Your task to perform on an android device: open a new tab in the chrome app Image 0: 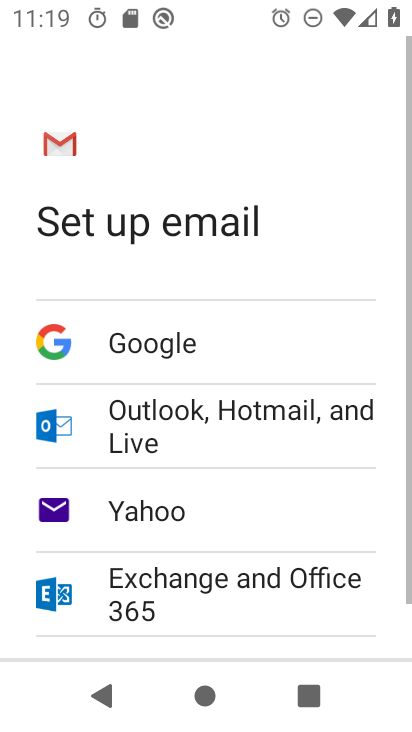
Step 0: press home button
Your task to perform on an android device: open a new tab in the chrome app Image 1: 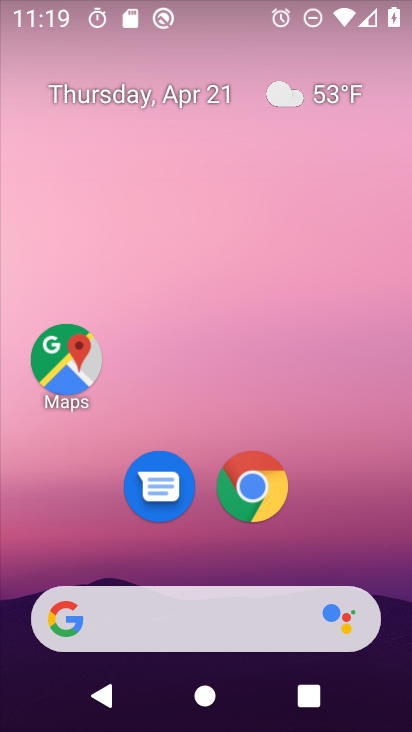
Step 1: drag from (384, 618) to (363, 225)
Your task to perform on an android device: open a new tab in the chrome app Image 2: 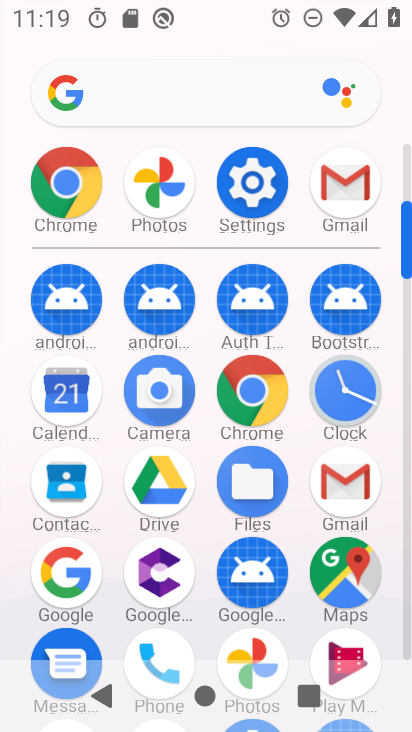
Step 2: click (241, 170)
Your task to perform on an android device: open a new tab in the chrome app Image 3: 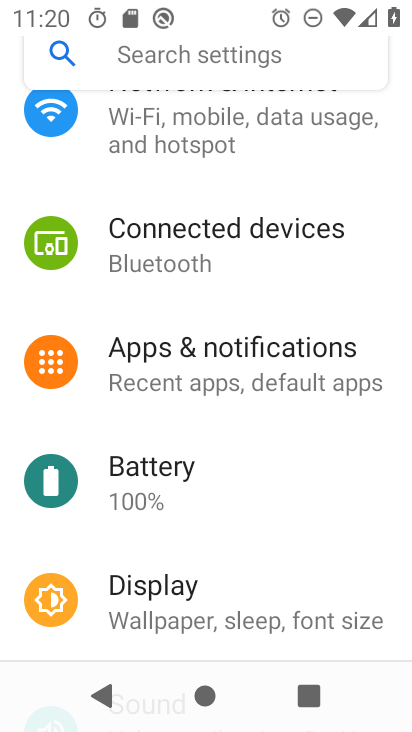
Step 3: press home button
Your task to perform on an android device: open a new tab in the chrome app Image 4: 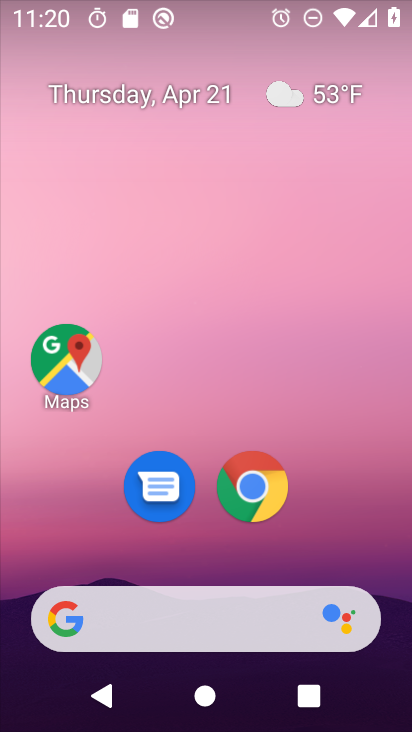
Step 4: click (244, 483)
Your task to perform on an android device: open a new tab in the chrome app Image 5: 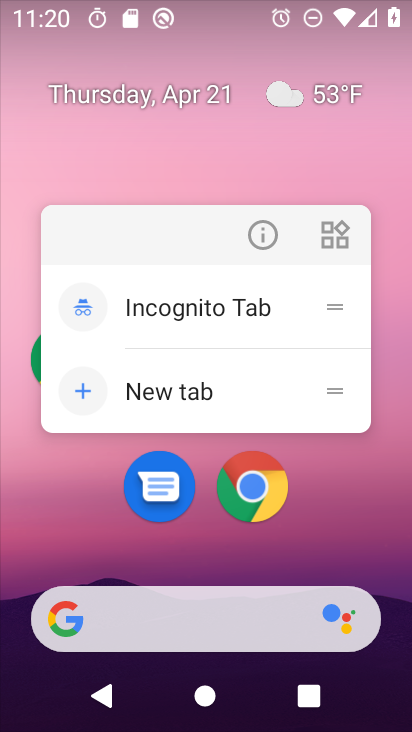
Step 5: click (253, 486)
Your task to perform on an android device: open a new tab in the chrome app Image 6: 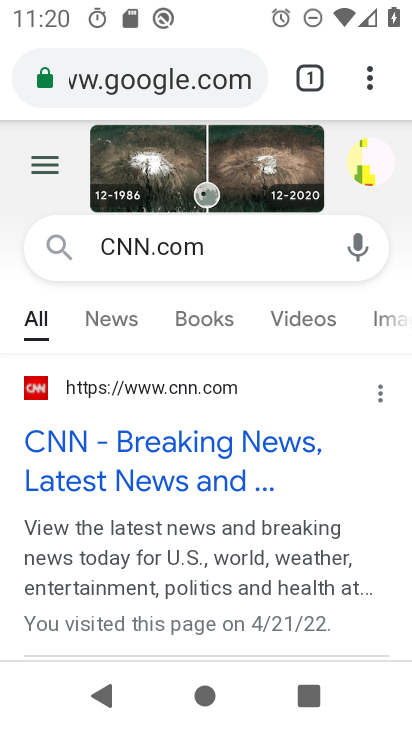
Step 6: click (366, 77)
Your task to perform on an android device: open a new tab in the chrome app Image 7: 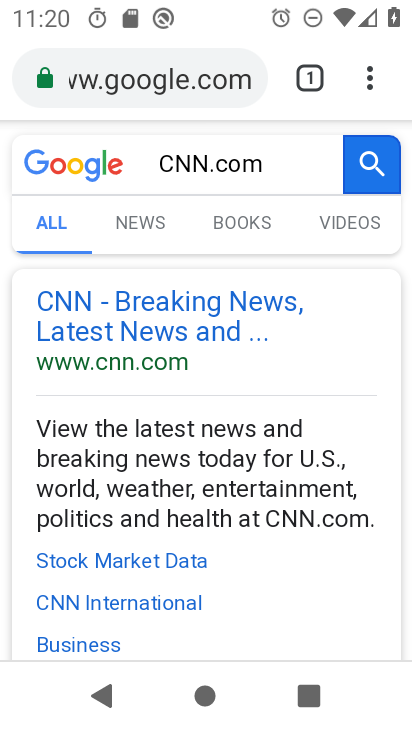
Step 7: click (366, 77)
Your task to perform on an android device: open a new tab in the chrome app Image 8: 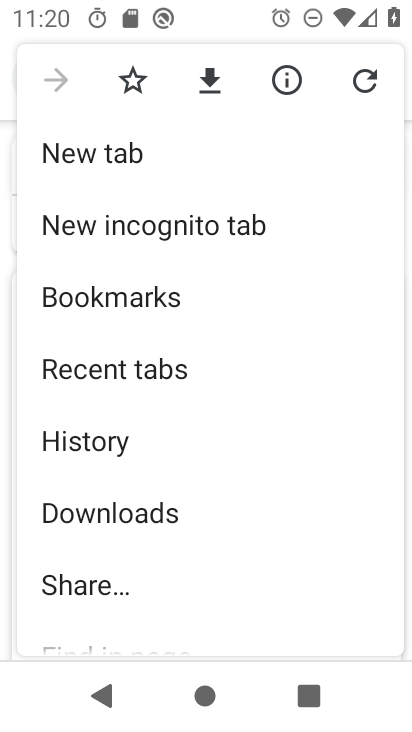
Step 8: click (95, 152)
Your task to perform on an android device: open a new tab in the chrome app Image 9: 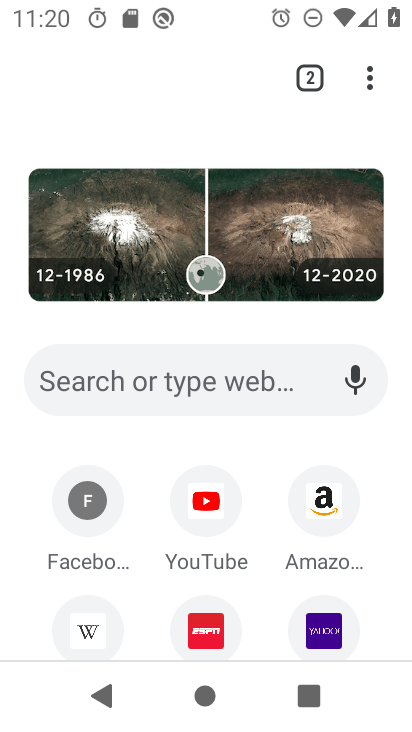
Step 9: task complete